Your task to perform on an android device: open device folders in google photos Image 0: 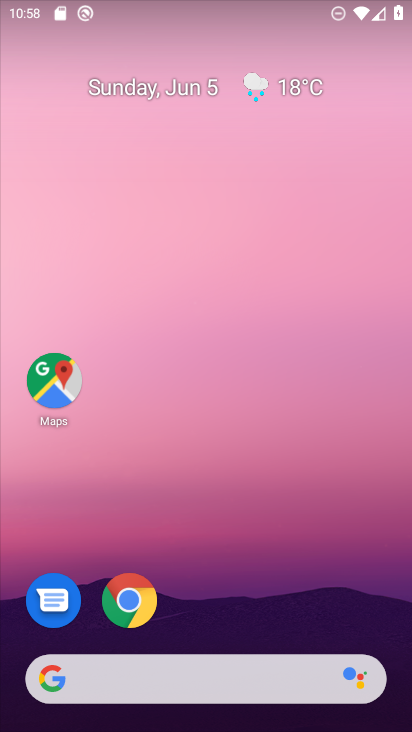
Step 0: drag from (210, 543) to (259, 58)
Your task to perform on an android device: open device folders in google photos Image 1: 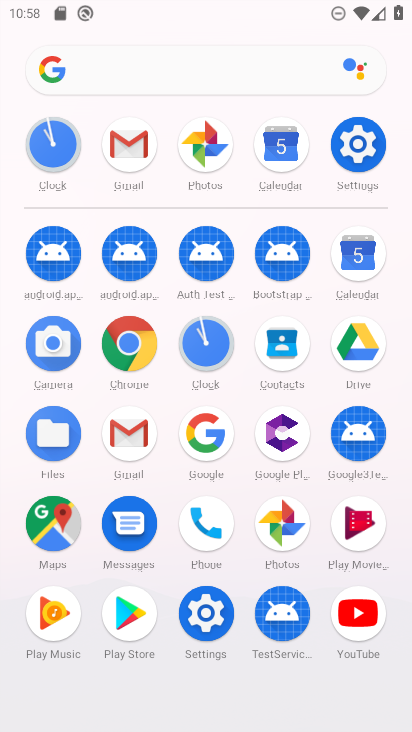
Step 1: click (285, 522)
Your task to perform on an android device: open device folders in google photos Image 2: 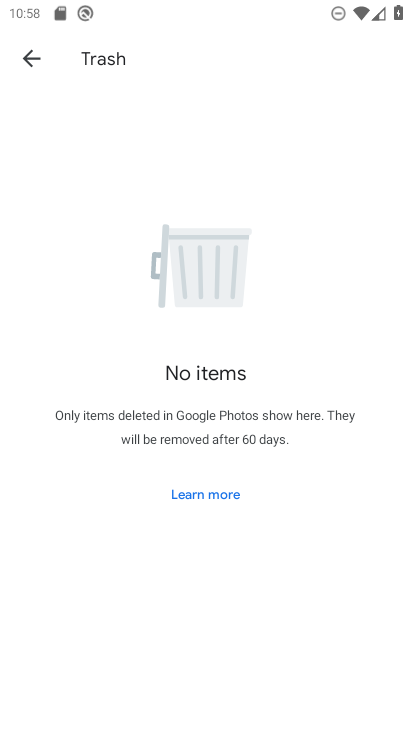
Step 2: click (51, 69)
Your task to perform on an android device: open device folders in google photos Image 3: 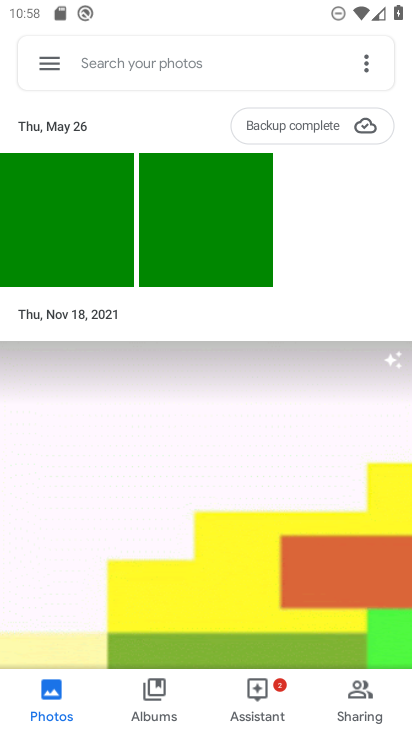
Step 3: click (51, 69)
Your task to perform on an android device: open device folders in google photos Image 4: 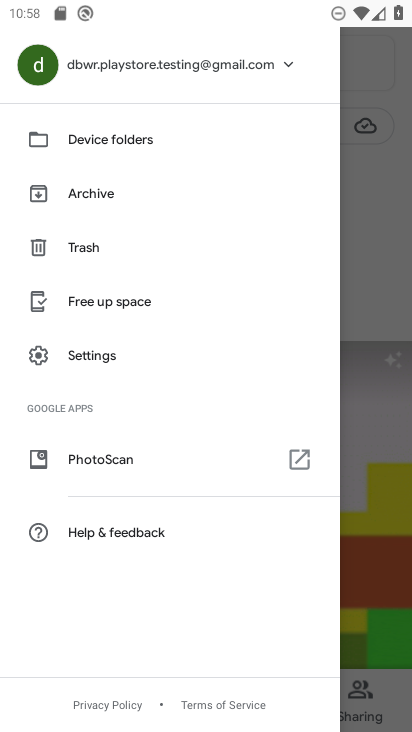
Step 4: click (132, 134)
Your task to perform on an android device: open device folders in google photos Image 5: 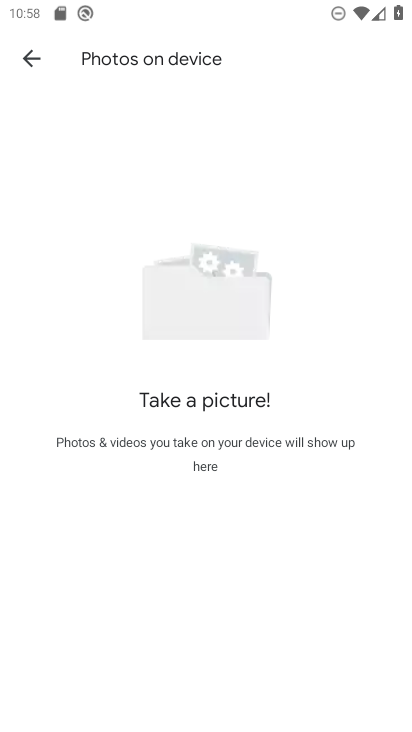
Step 5: task complete